Your task to perform on an android device: Set the phone to "Do not disturb". Image 0: 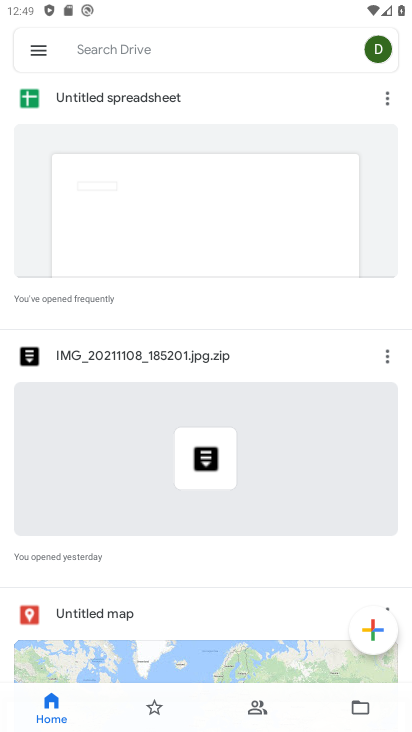
Step 0: drag from (291, 16) to (309, 451)
Your task to perform on an android device: Set the phone to "Do not disturb". Image 1: 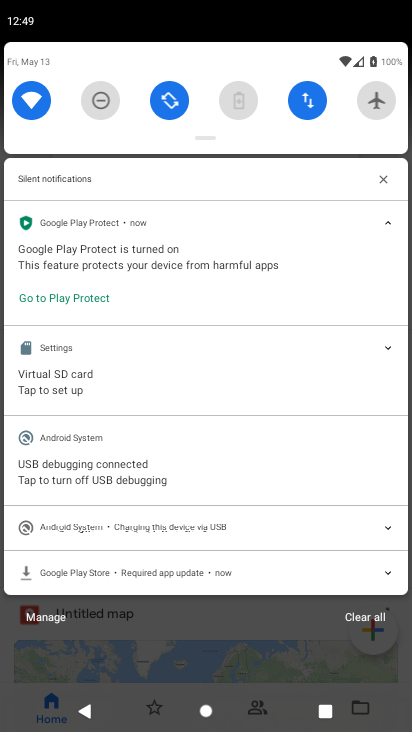
Step 1: click (99, 95)
Your task to perform on an android device: Set the phone to "Do not disturb". Image 2: 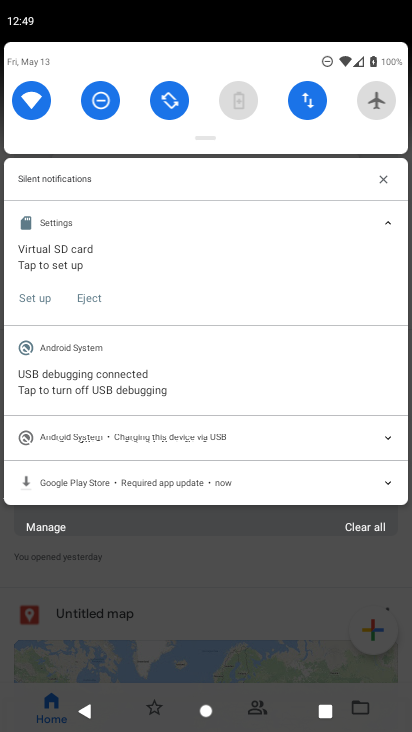
Step 2: task complete